Your task to perform on an android device: open device folders in google photos Image 0: 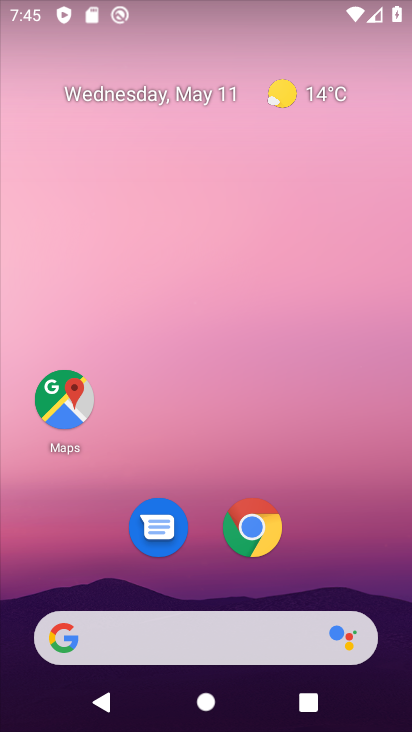
Step 0: drag from (226, 612) to (210, 113)
Your task to perform on an android device: open device folders in google photos Image 1: 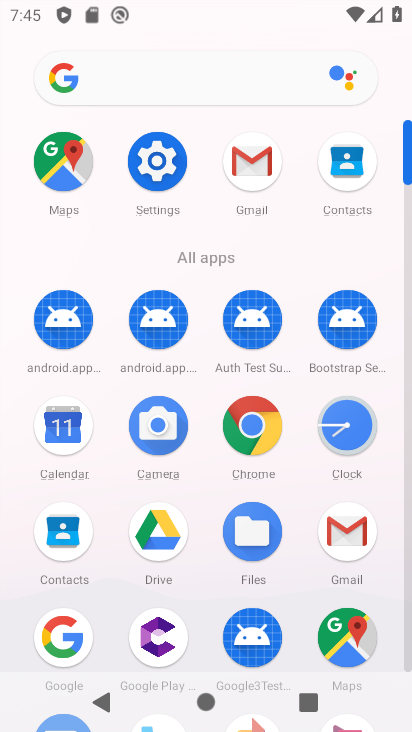
Step 1: drag from (267, 516) to (272, 294)
Your task to perform on an android device: open device folders in google photos Image 2: 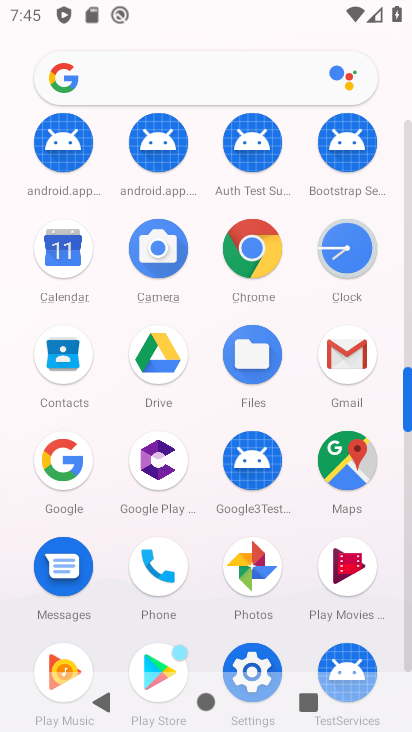
Step 2: click (262, 586)
Your task to perform on an android device: open device folders in google photos Image 3: 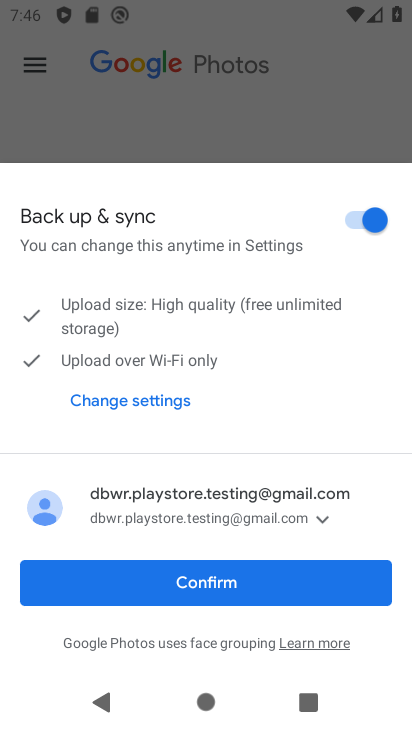
Step 3: click (251, 575)
Your task to perform on an android device: open device folders in google photos Image 4: 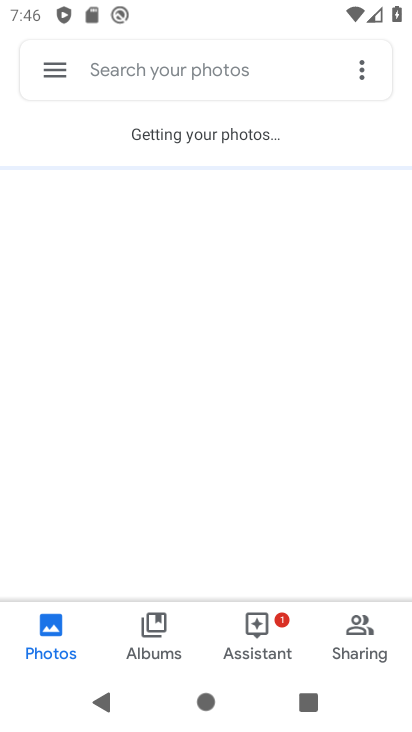
Step 4: click (53, 67)
Your task to perform on an android device: open device folders in google photos Image 5: 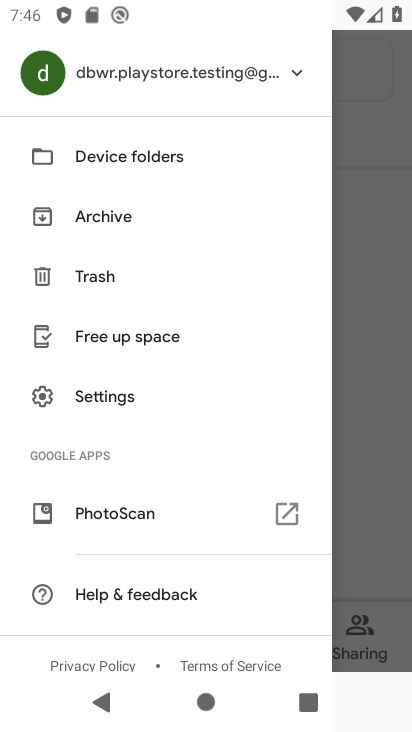
Step 5: click (136, 160)
Your task to perform on an android device: open device folders in google photos Image 6: 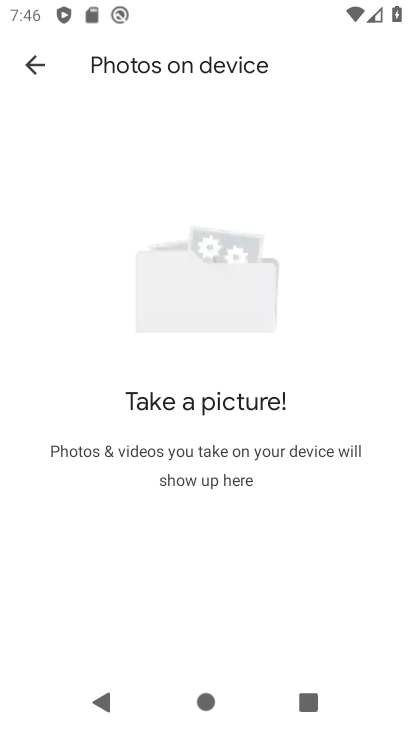
Step 6: task complete